Your task to perform on an android device: Do I have any events tomorrow? Image 0: 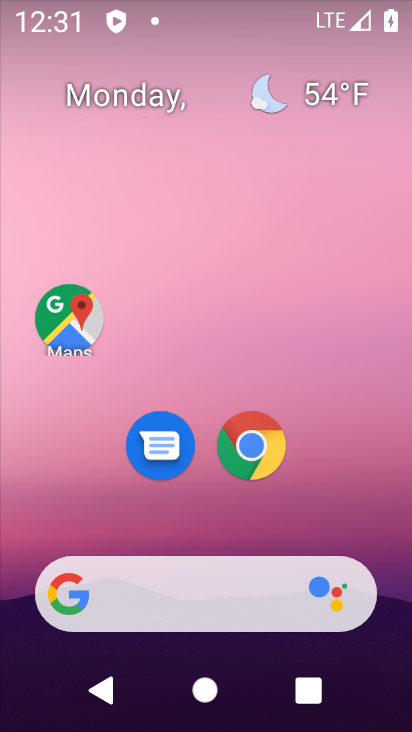
Step 0: drag from (361, 470) to (341, 70)
Your task to perform on an android device: Do I have any events tomorrow? Image 1: 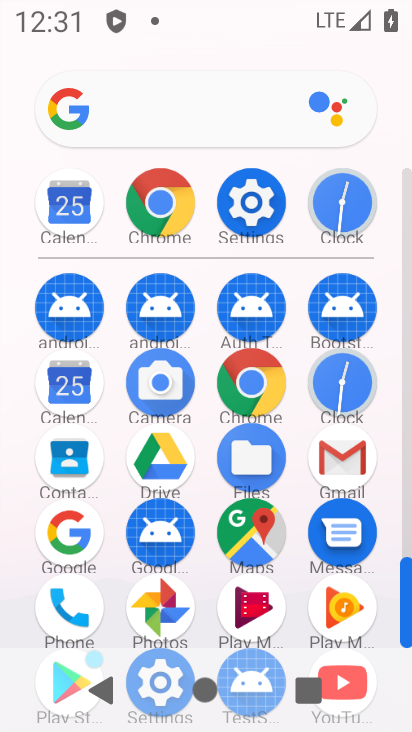
Step 1: click (63, 395)
Your task to perform on an android device: Do I have any events tomorrow? Image 2: 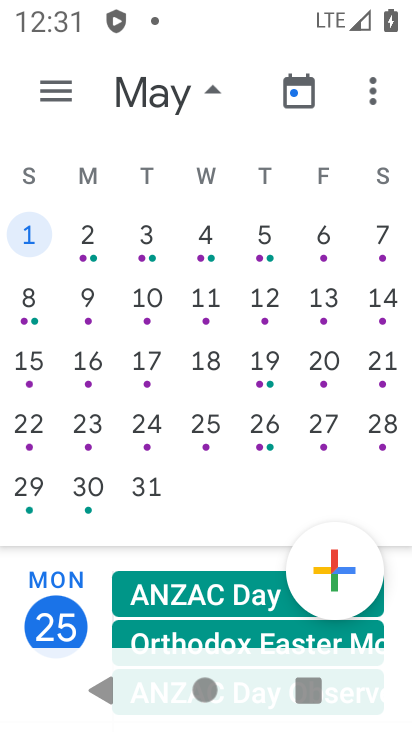
Step 2: drag from (148, 202) to (322, 182)
Your task to perform on an android device: Do I have any events tomorrow? Image 3: 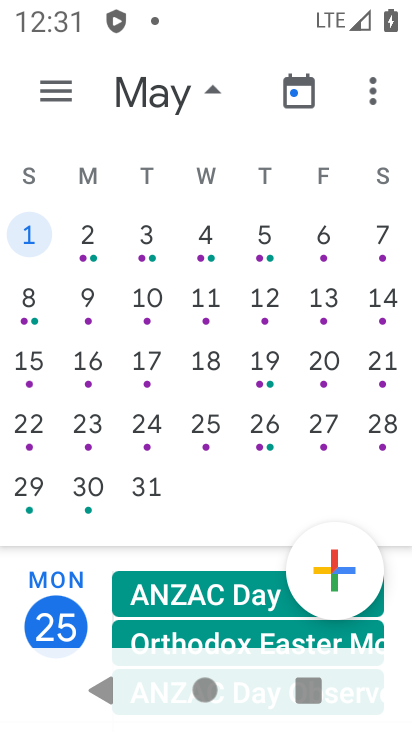
Step 3: drag from (153, 271) to (391, 277)
Your task to perform on an android device: Do I have any events tomorrow? Image 4: 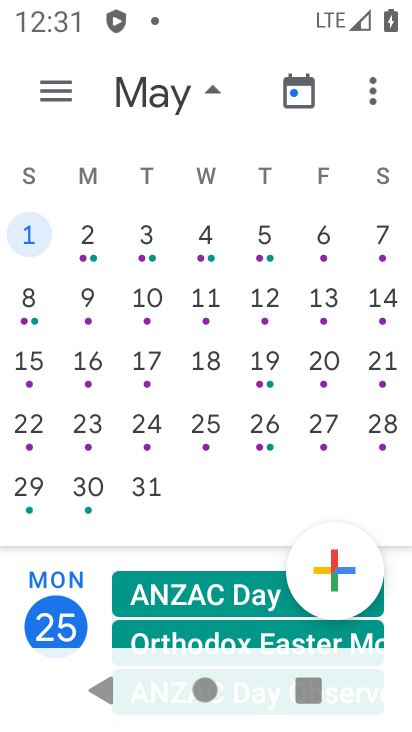
Step 4: drag from (53, 198) to (406, 344)
Your task to perform on an android device: Do I have any events tomorrow? Image 5: 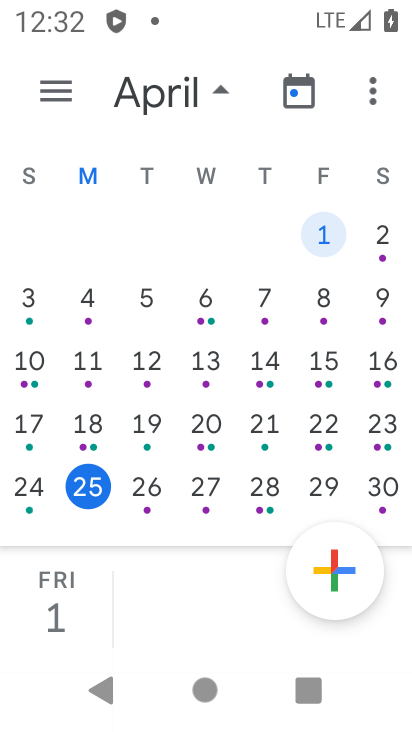
Step 5: click (149, 494)
Your task to perform on an android device: Do I have any events tomorrow? Image 6: 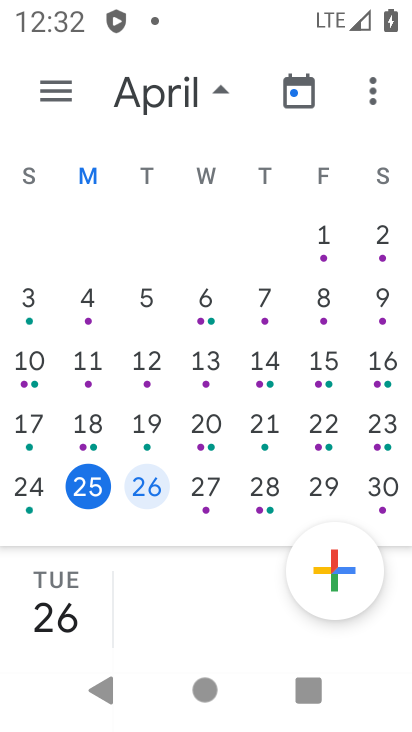
Step 6: drag from (137, 616) to (172, 392)
Your task to perform on an android device: Do I have any events tomorrow? Image 7: 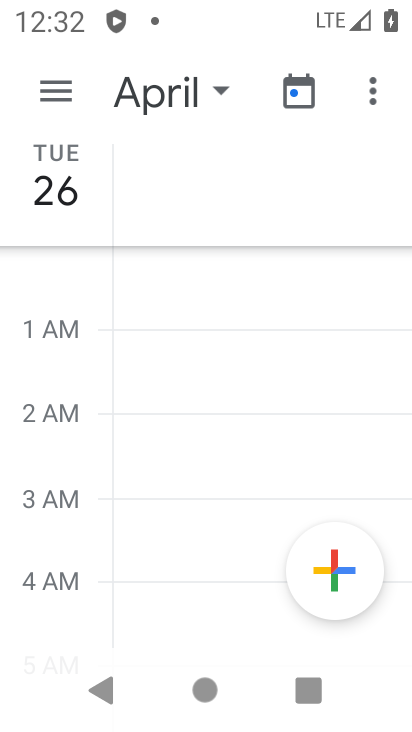
Step 7: click (41, 93)
Your task to perform on an android device: Do I have any events tomorrow? Image 8: 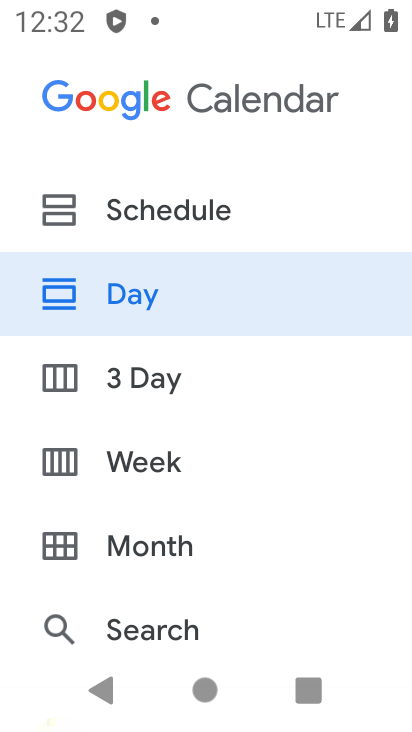
Step 8: click (110, 223)
Your task to perform on an android device: Do I have any events tomorrow? Image 9: 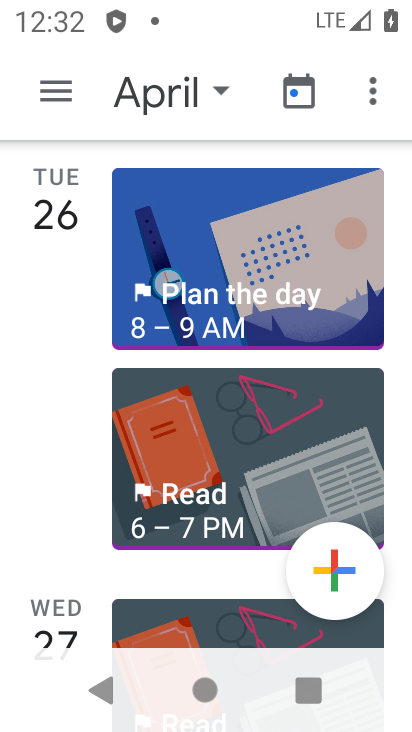
Step 9: task complete